Your task to perform on an android device: stop showing notifications on the lock screen Image 0: 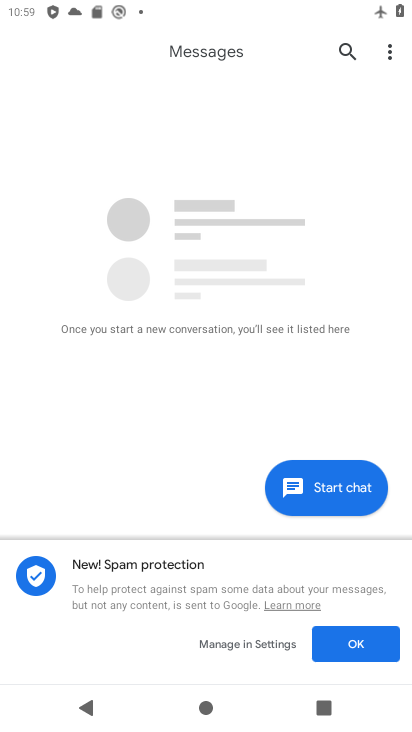
Step 0: press home button
Your task to perform on an android device: stop showing notifications on the lock screen Image 1: 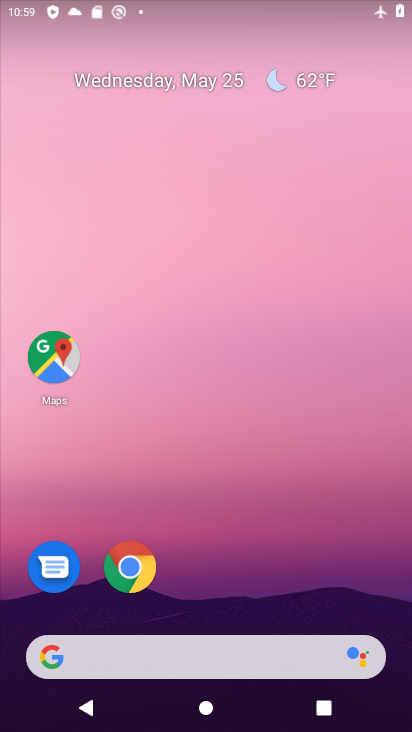
Step 1: drag from (346, 585) to (238, 58)
Your task to perform on an android device: stop showing notifications on the lock screen Image 2: 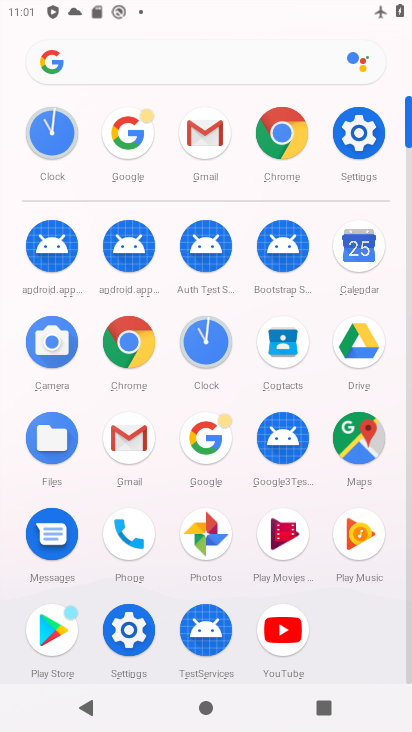
Step 2: click (125, 627)
Your task to perform on an android device: stop showing notifications on the lock screen Image 3: 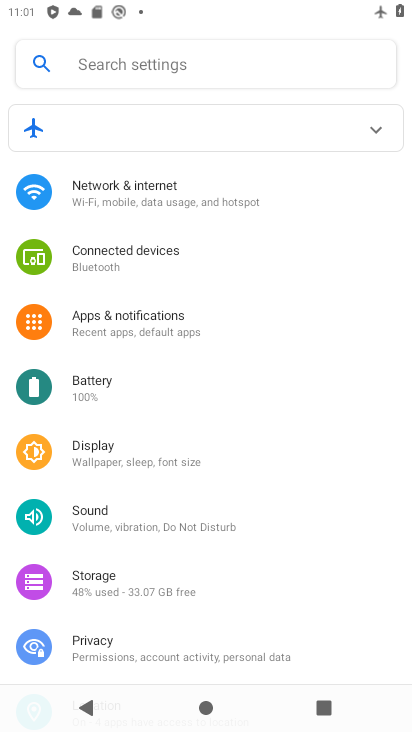
Step 3: click (184, 339)
Your task to perform on an android device: stop showing notifications on the lock screen Image 4: 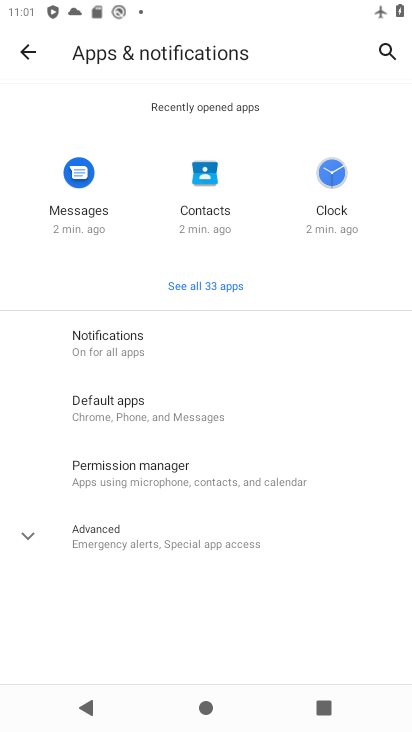
Step 4: click (164, 351)
Your task to perform on an android device: stop showing notifications on the lock screen Image 5: 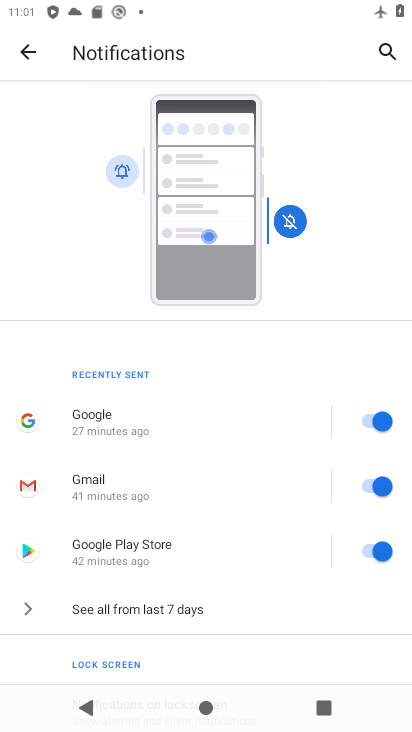
Step 5: drag from (181, 632) to (229, 270)
Your task to perform on an android device: stop showing notifications on the lock screen Image 6: 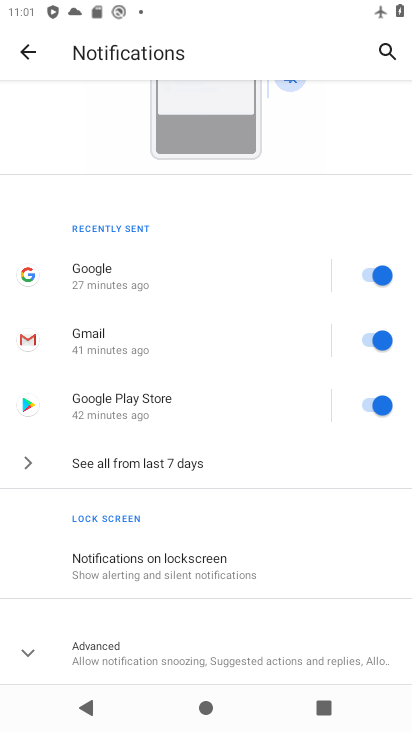
Step 6: click (198, 570)
Your task to perform on an android device: stop showing notifications on the lock screen Image 7: 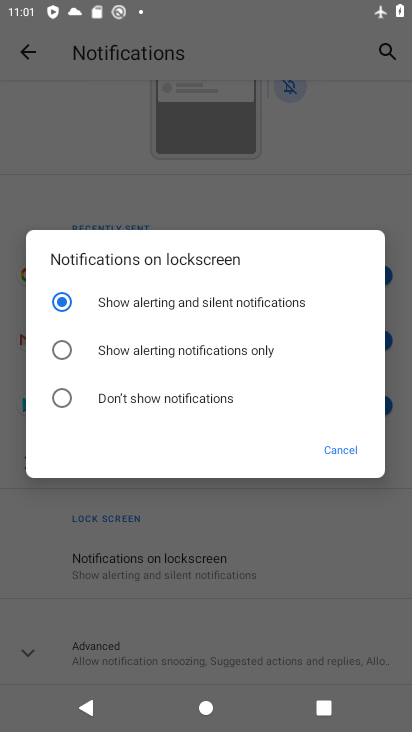
Step 7: click (62, 397)
Your task to perform on an android device: stop showing notifications on the lock screen Image 8: 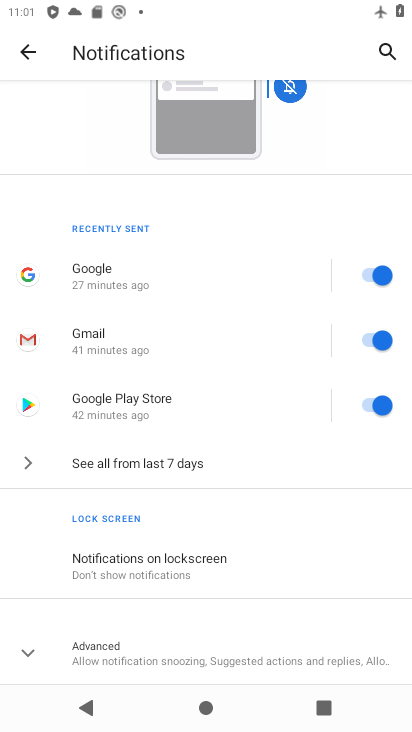
Step 8: task complete